Your task to perform on an android device: find photos in the google photos app Image 0: 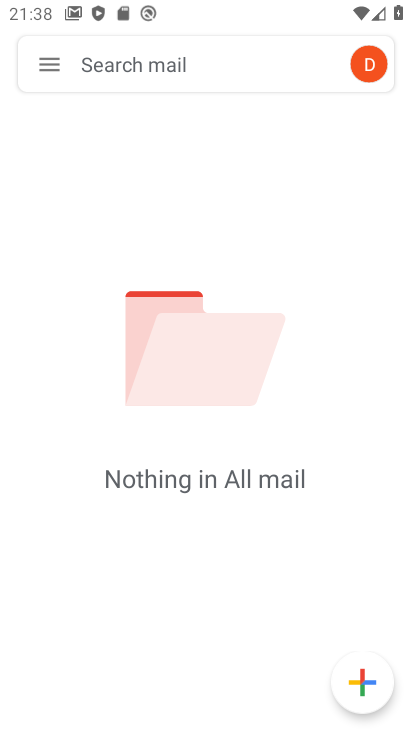
Step 0: press home button
Your task to perform on an android device: find photos in the google photos app Image 1: 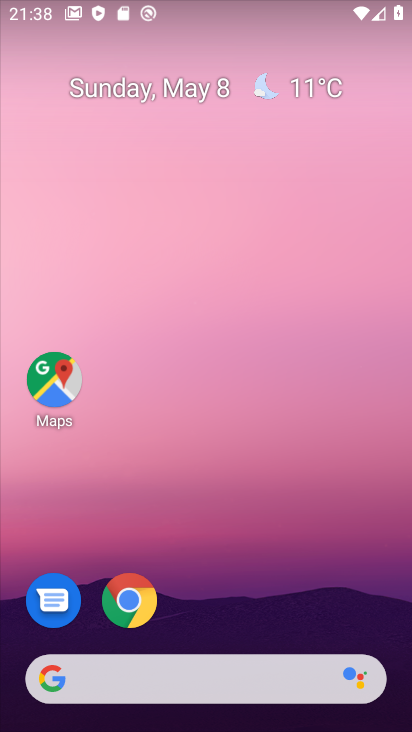
Step 1: drag from (214, 635) to (229, 4)
Your task to perform on an android device: find photos in the google photos app Image 2: 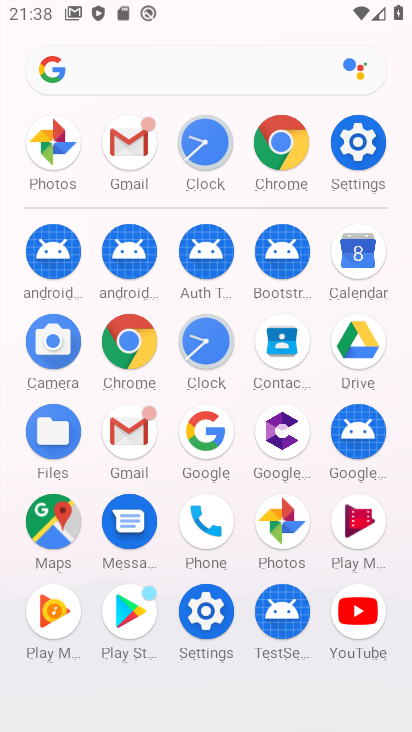
Step 2: click (62, 148)
Your task to perform on an android device: find photos in the google photos app Image 3: 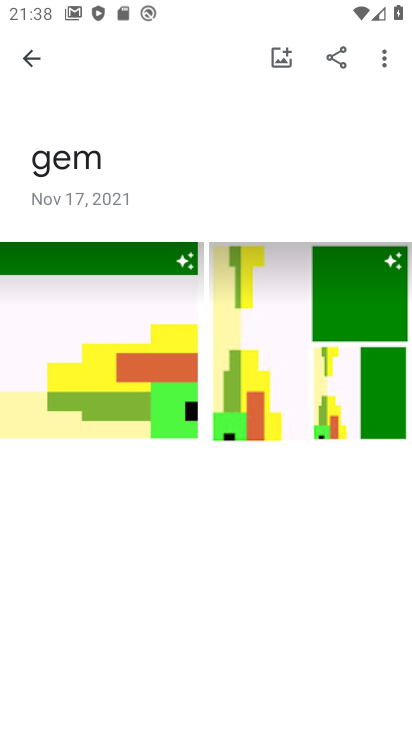
Step 3: task complete